Your task to perform on an android device: What is the capital of the United Kingdom? Image 0: 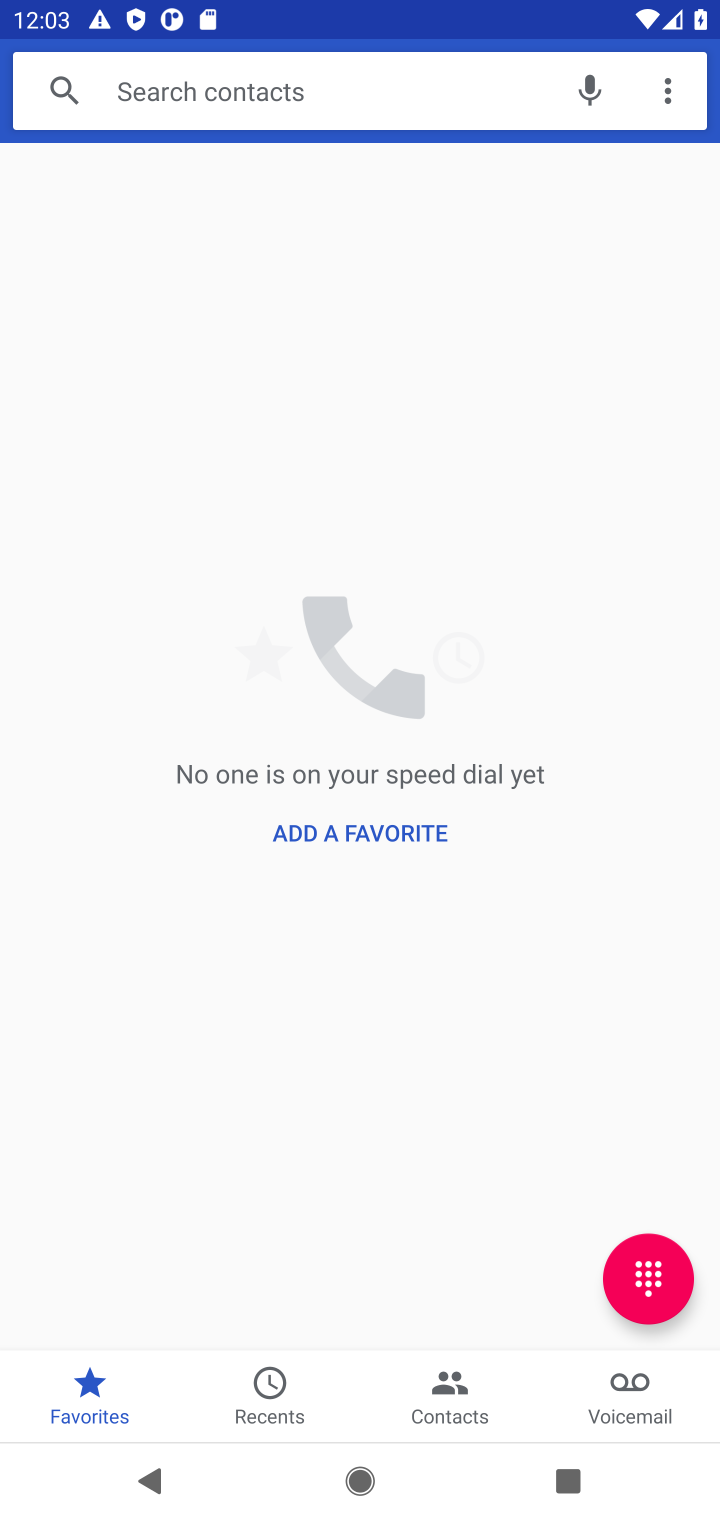
Step 0: press home button
Your task to perform on an android device: What is the capital of the United Kingdom? Image 1: 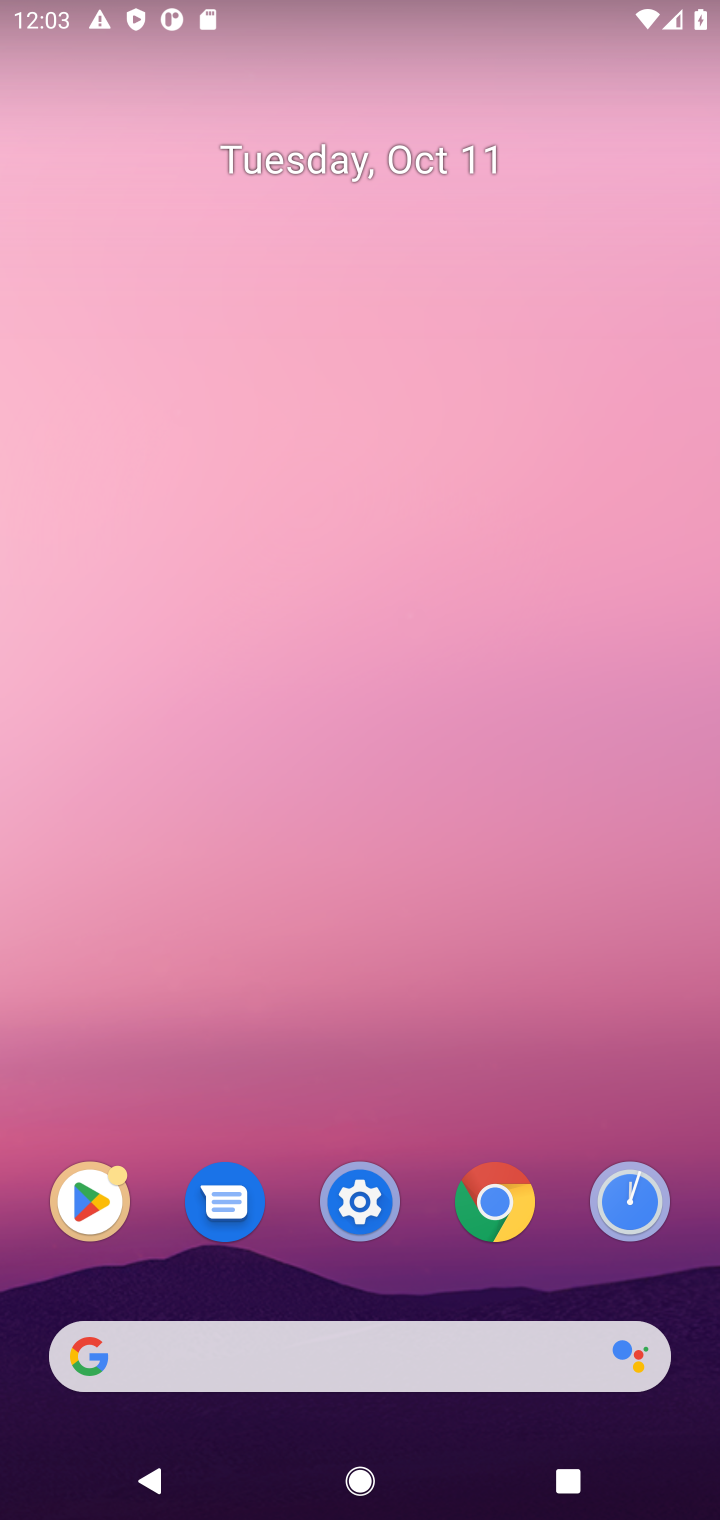
Step 1: click (79, 1358)
Your task to perform on an android device: What is the capital of the United Kingdom? Image 2: 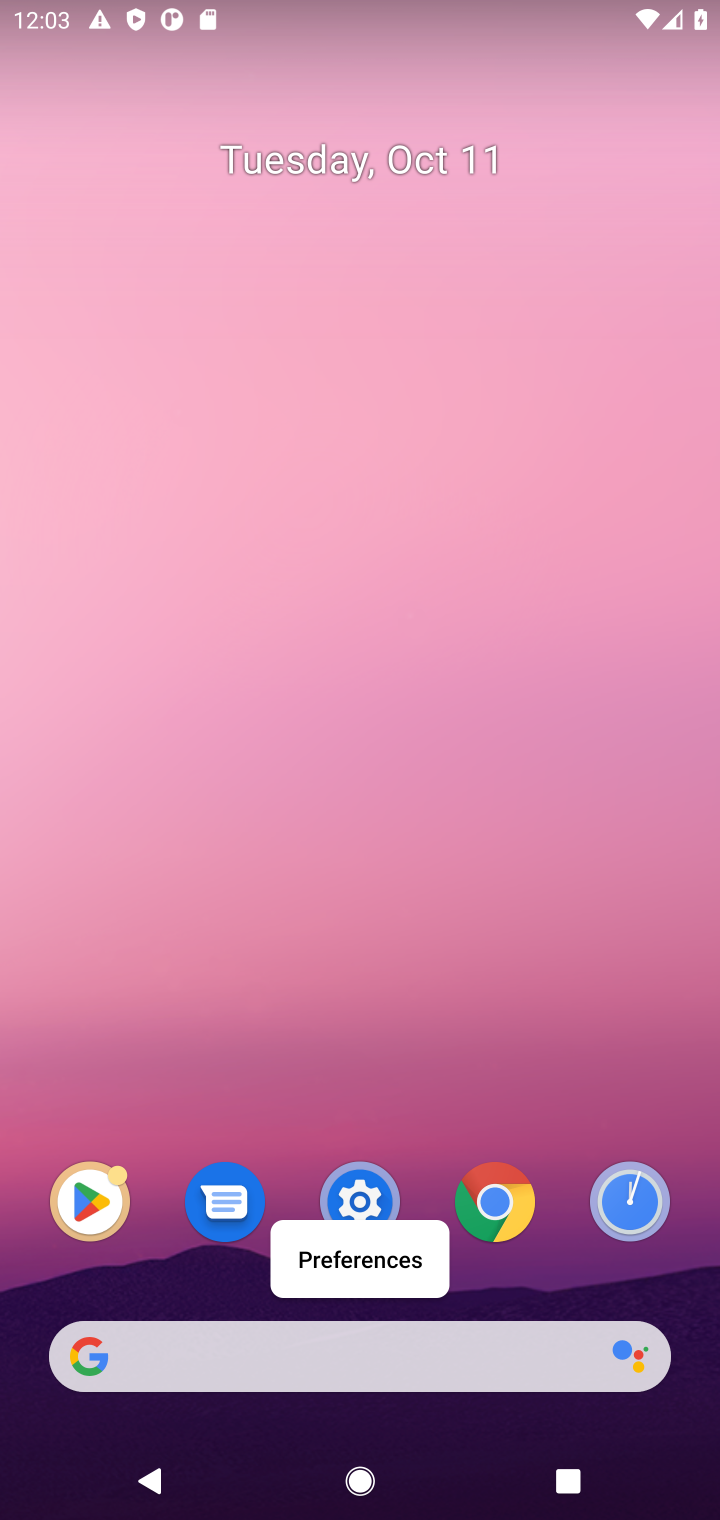
Step 2: click (90, 1344)
Your task to perform on an android device: What is the capital of the United Kingdom? Image 3: 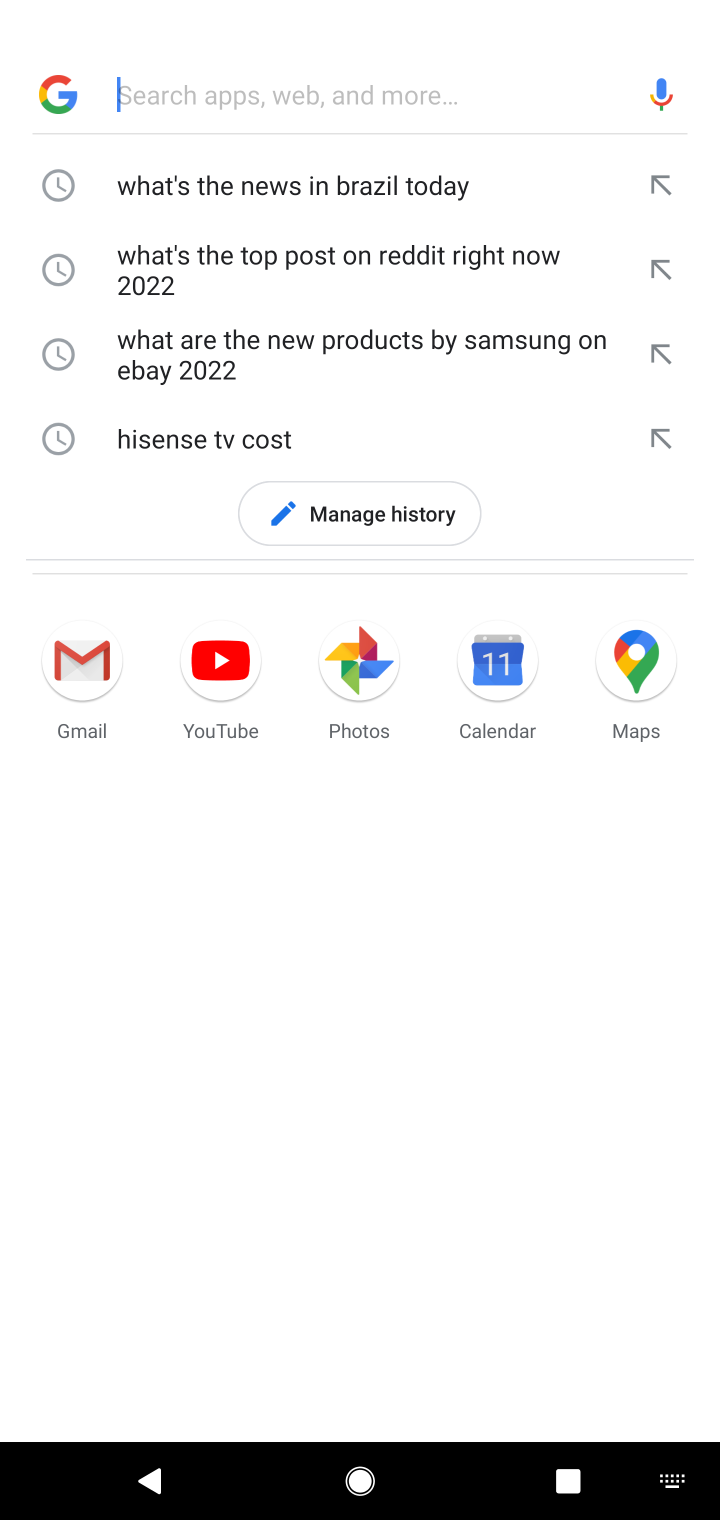
Step 3: type "What is the capital of the United Kingdom?"
Your task to perform on an android device: What is the capital of the United Kingdom? Image 4: 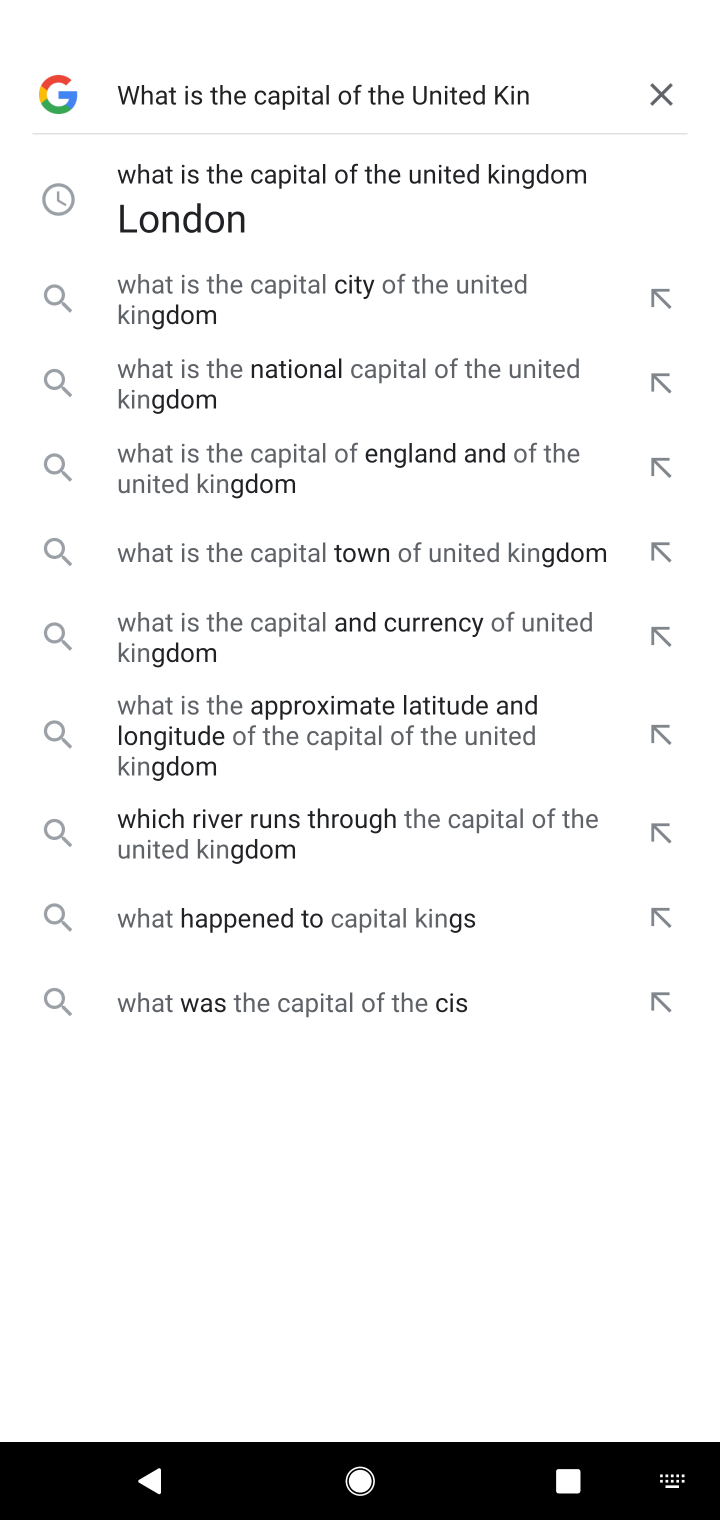
Step 4: click (310, 202)
Your task to perform on an android device: What is the capital of the United Kingdom? Image 5: 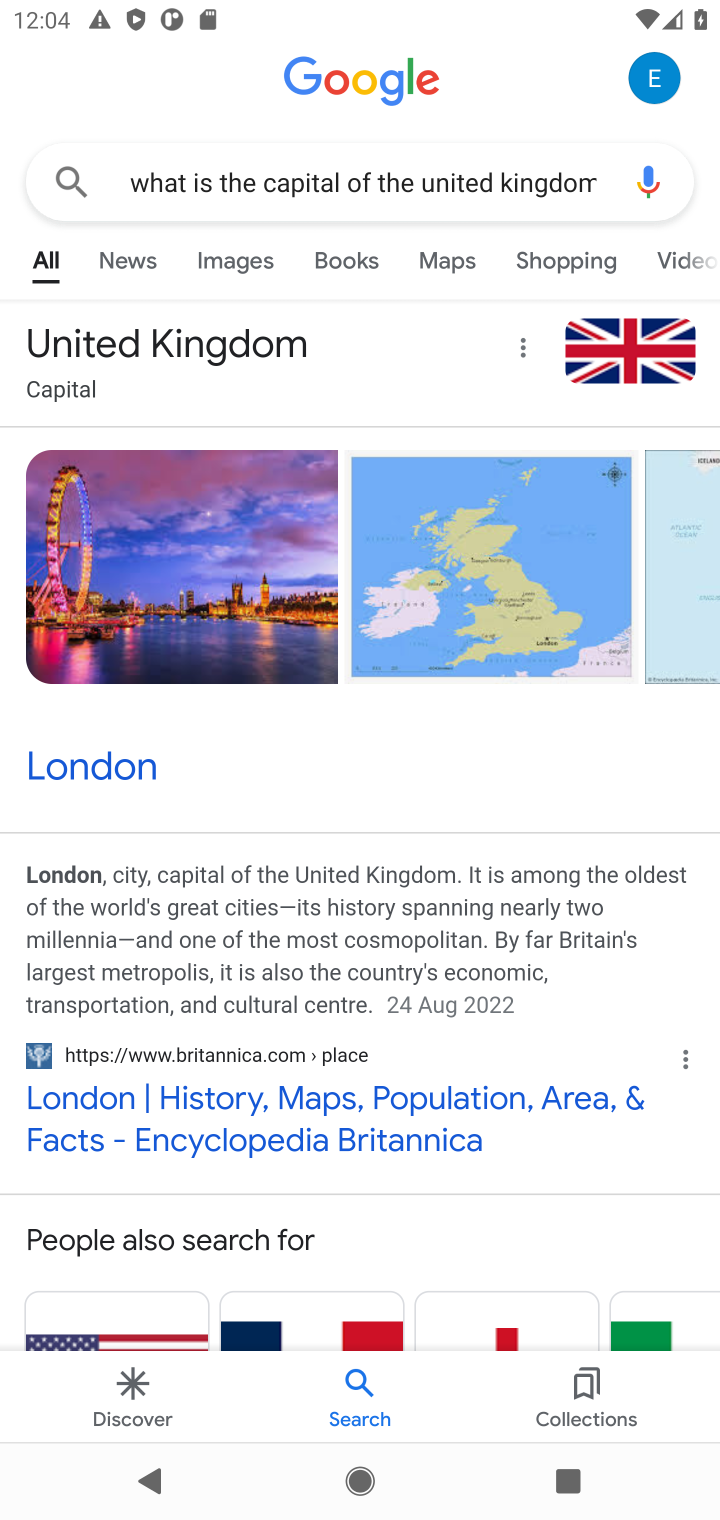
Step 5: click (218, 1114)
Your task to perform on an android device: What is the capital of the United Kingdom? Image 6: 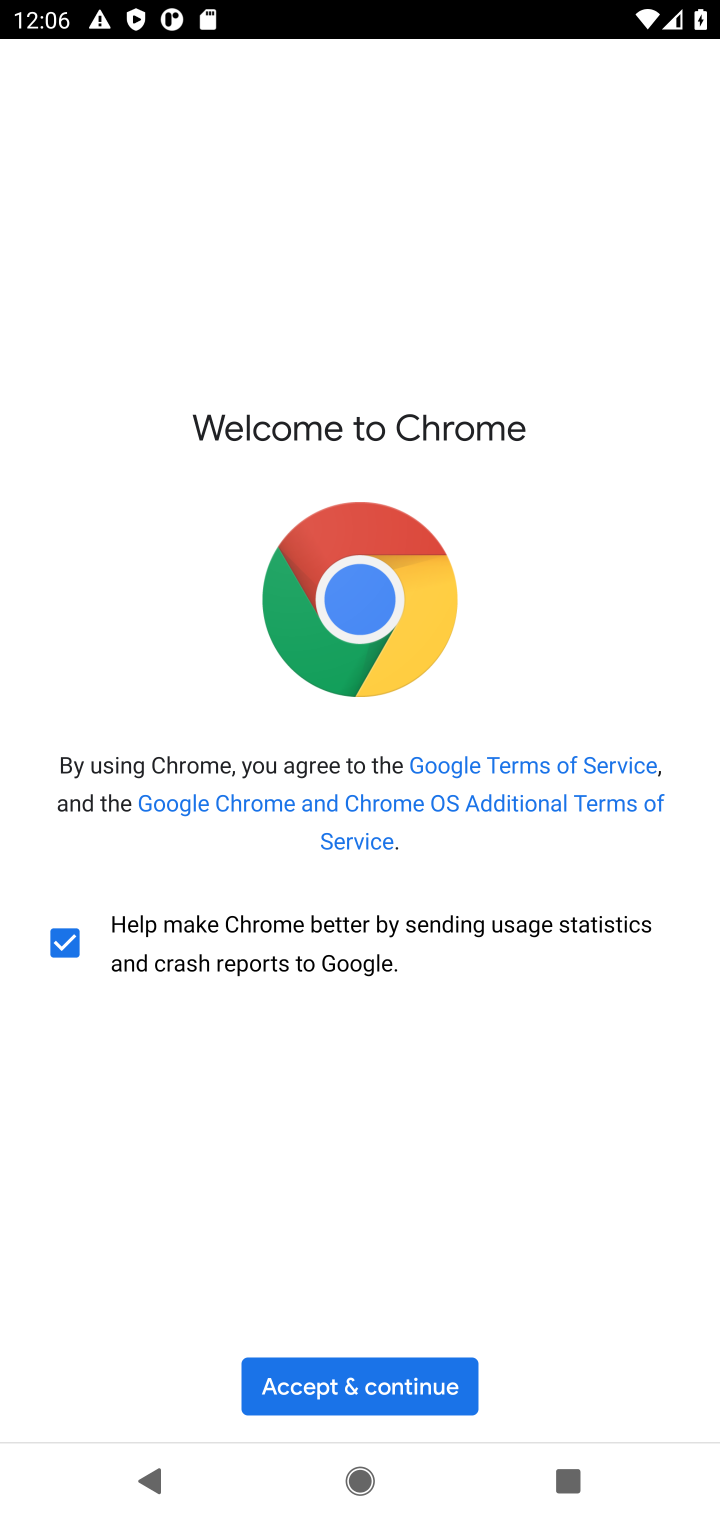
Step 6: task complete